Your task to perform on an android device: change notifications settings Image 0: 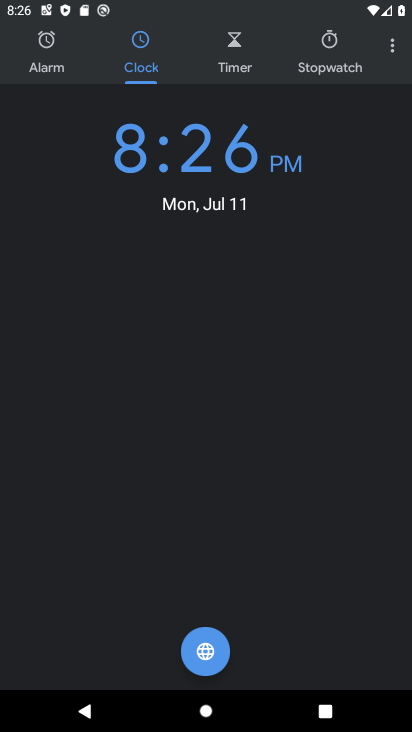
Step 0: press home button
Your task to perform on an android device: change notifications settings Image 1: 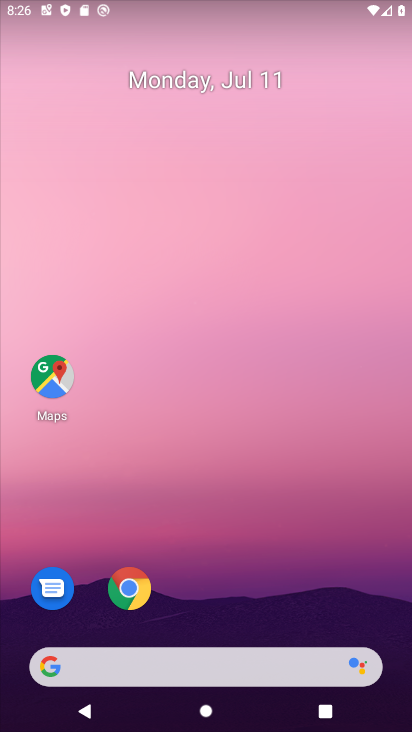
Step 1: drag from (318, 596) to (358, 83)
Your task to perform on an android device: change notifications settings Image 2: 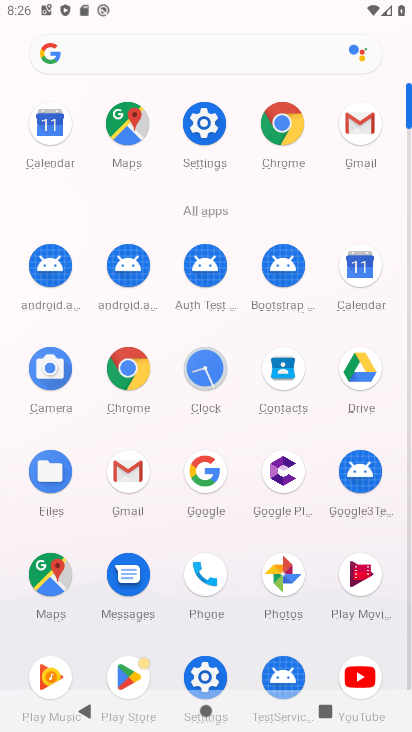
Step 2: click (210, 662)
Your task to perform on an android device: change notifications settings Image 3: 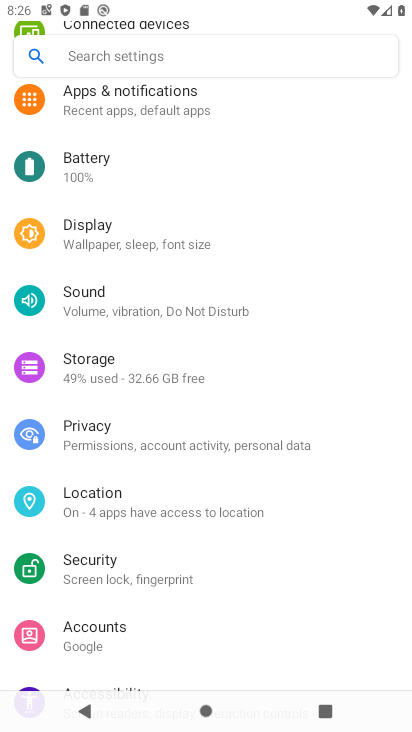
Step 3: click (116, 98)
Your task to perform on an android device: change notifications settings Image 4: 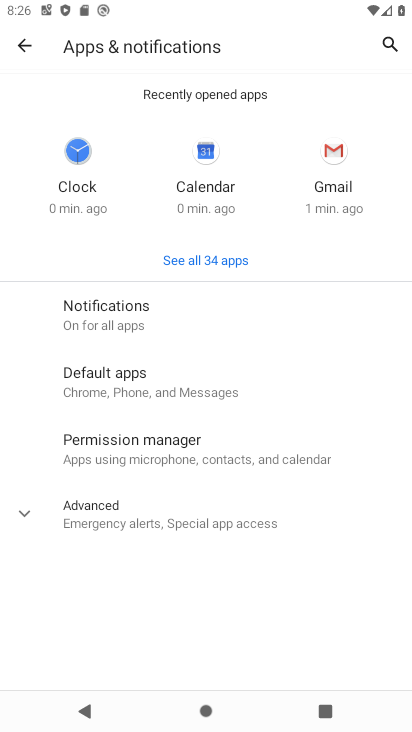
Step 4: click (154, 321)
Your task to perform on an android device: change notifications settings Image 5: 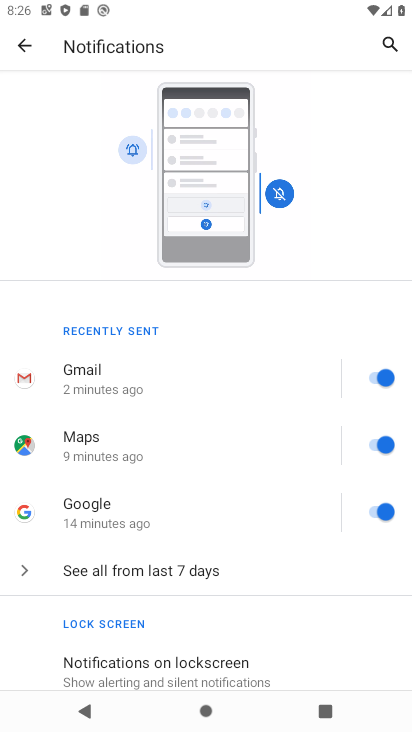
Step 5: click (213, 581)
Your task to perform on an android device: change notifications settings Image 6: 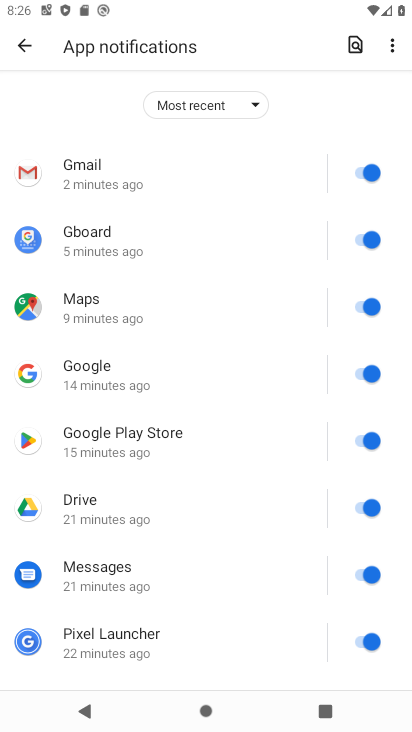
Step 6: click (362, 162)
Your task to perform on an android device: change notifications settings Image 7: 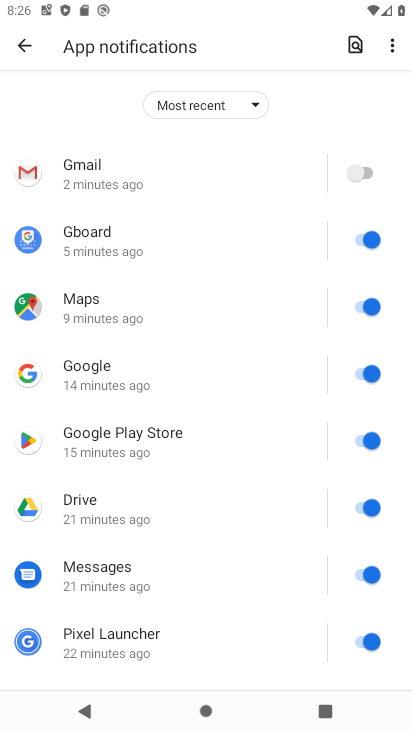
Step 7: click (367, 238)
Your task to perform on an android device: change notifications settings Image 8: 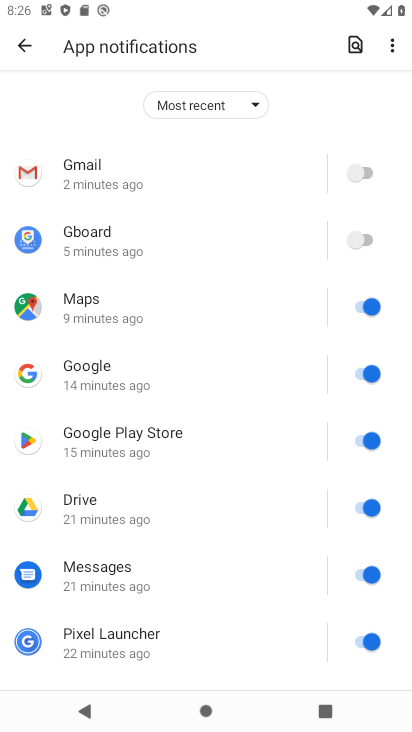
Step 8: click (367, 305)
Your task to perform on an android device: change notifications settings Image 9: 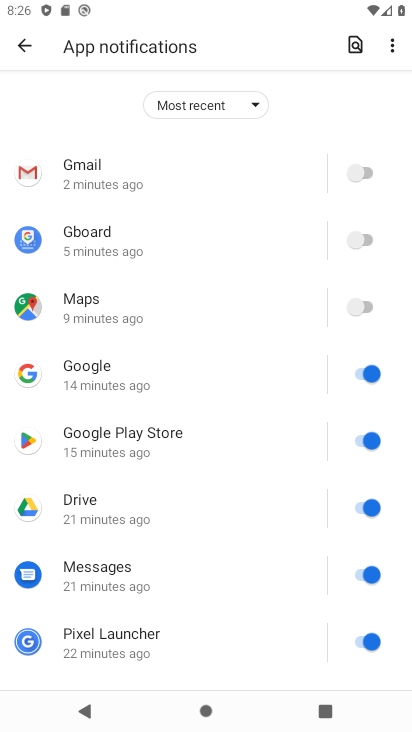
Step 9: click (369, 376)
Your task to perform on an android device: change notifications settings Image 10: 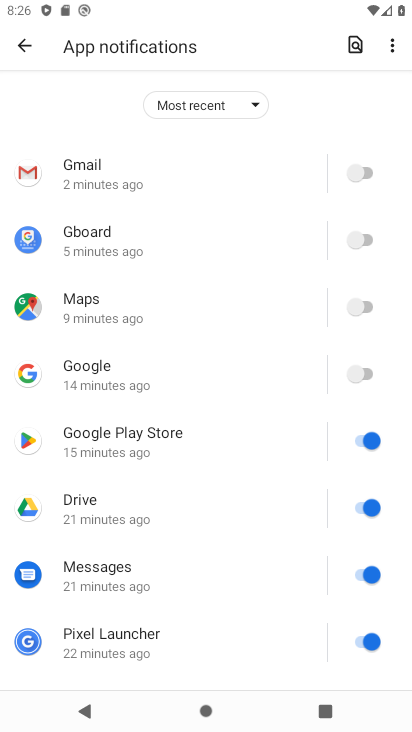
Step 10: click (363, 444)
Your task to perform on an android device: change notifications settings Image 11: 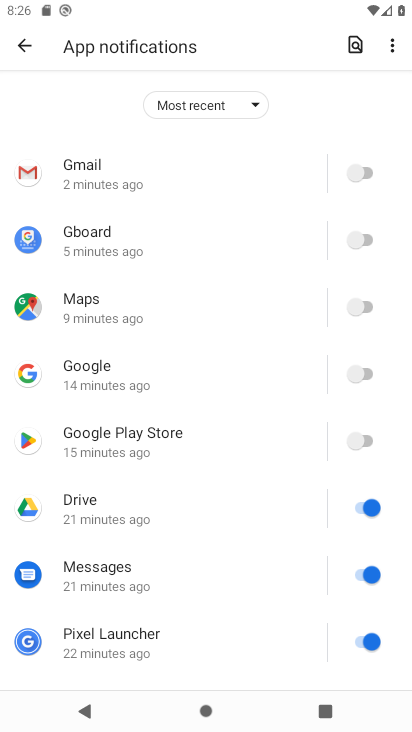
Step 11: click (369, 507)
Your task to perform on an android device: change notifications settings Image 12: 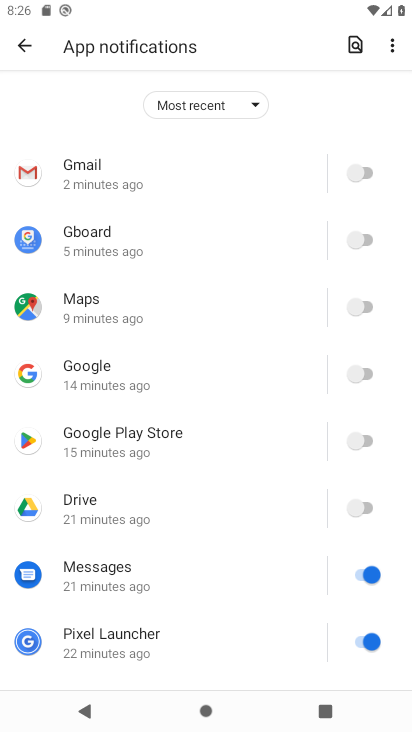
Step 12: click (369, 572)
Your task to perform on an android device: change notifications settings Image 13: 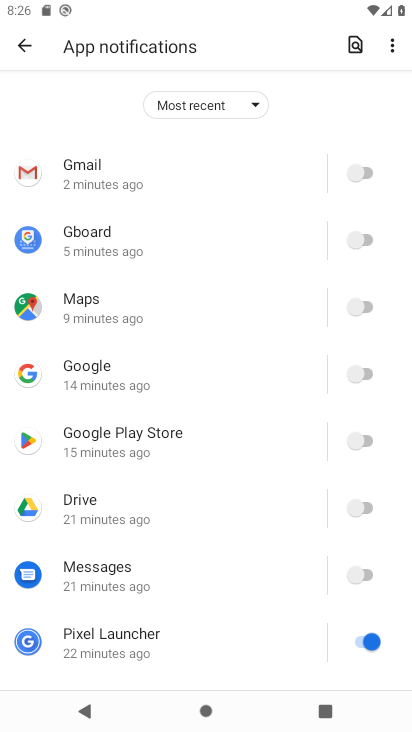
Step 13: click (373, 651)
Your task to perform on an android device: change notifications settings Image 14: 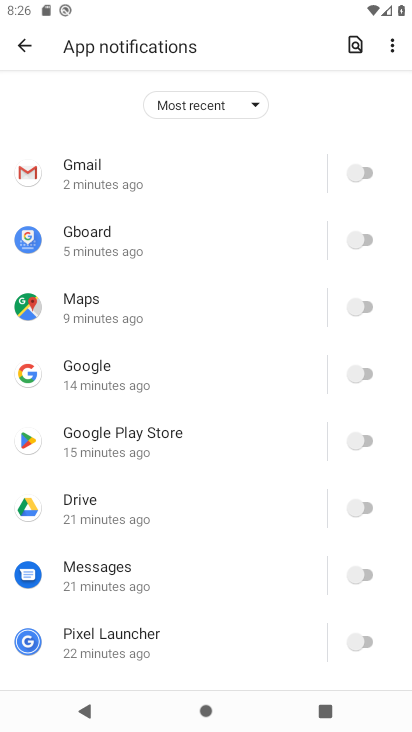
Step 14: drag from (263, 593) to (261, 150)
Your task to perform on an android device: change notifications settings Image 15: 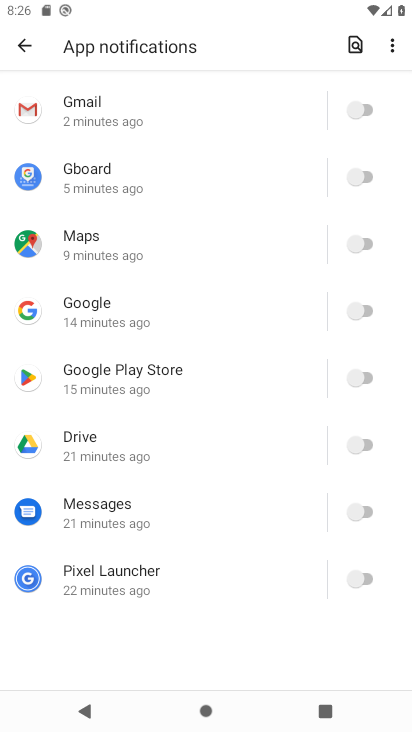
Step 15: click (19, 59)
Your task to perform on an android device: change notifications settings Image 16: 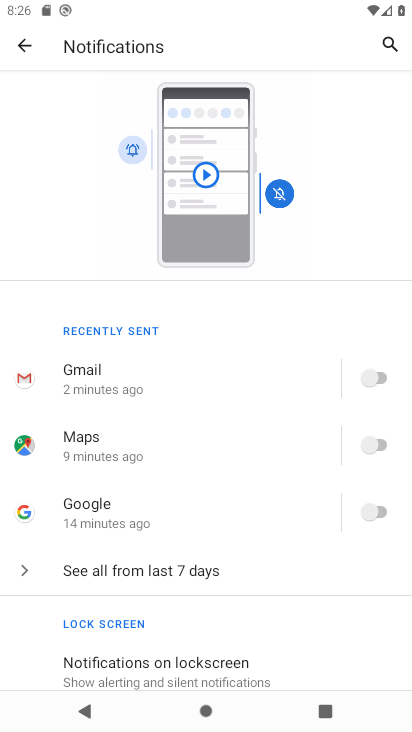
Step 16: click (152, 665)
Your task to perform on an android device: change notifications settings Image 17: 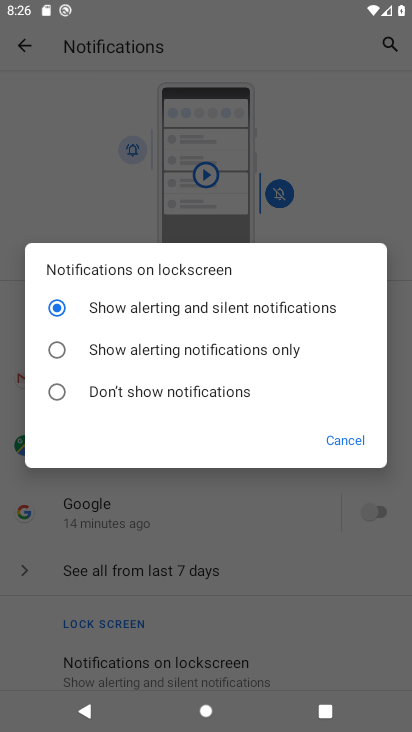
Step 17: click (161, 351)
Your task to perform on an android device: change notifications settings Image 18: 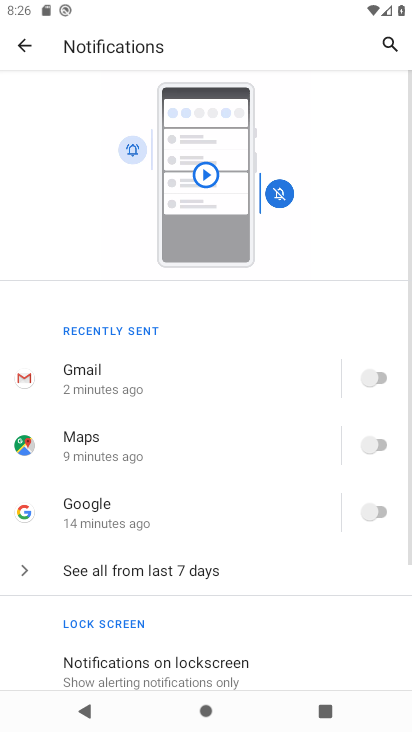
Step 18: drag from (223, 627) to (316, 50)
Your task to perform on an android device: change notifications settings Image 19: 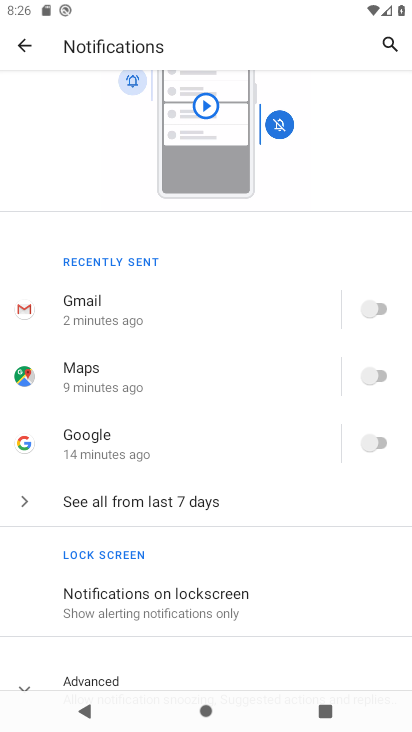
Step 19: click (230, 682)
Your task to perform on an android device: change notifications settings Image 20: 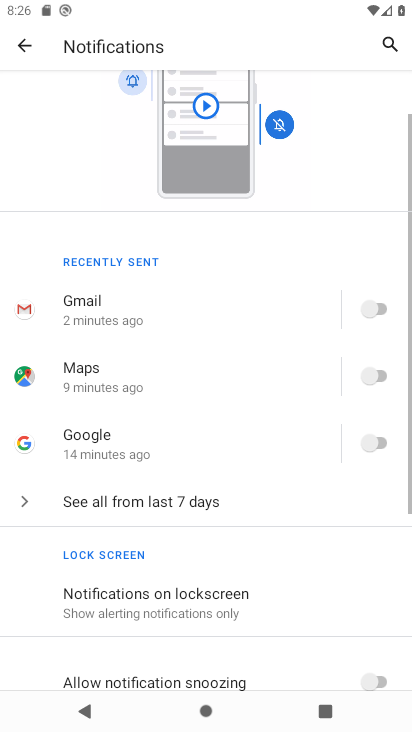
Step 20: drag from (230, 682) to (277, 153)
Your task to perform on an android device: change notifications settings Image 21: 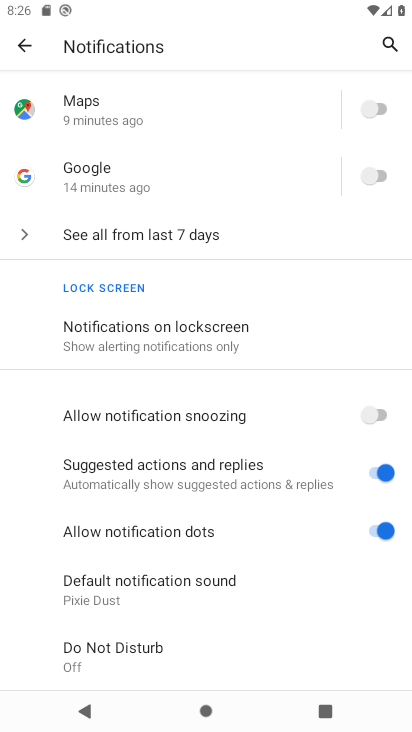
Step 21: click (378, 433)
Your task to perform on an android device: change notifications settings Image 22: 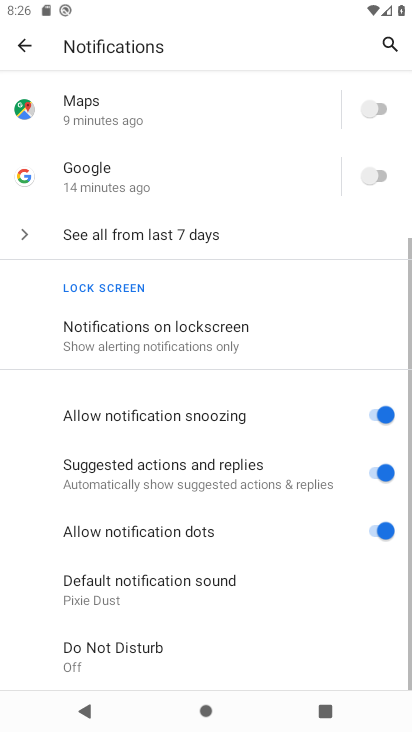
Step 22: click (378, 461)
Your task to perform on an android device: change notifications settings Image 23: 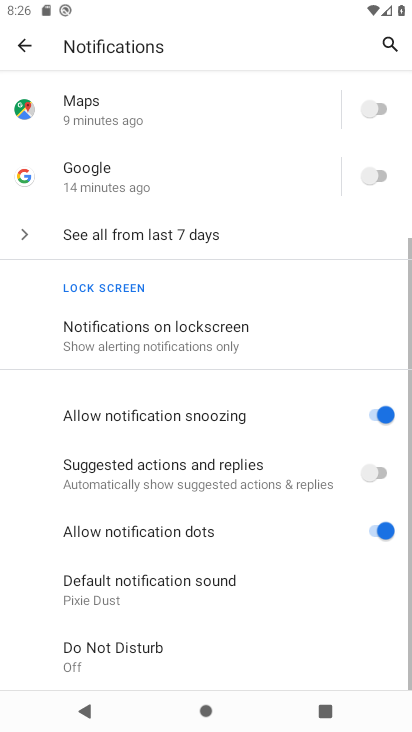
Step 23: click (371, 536)
Your task to perform on an android device: change notifications settings Image 24: 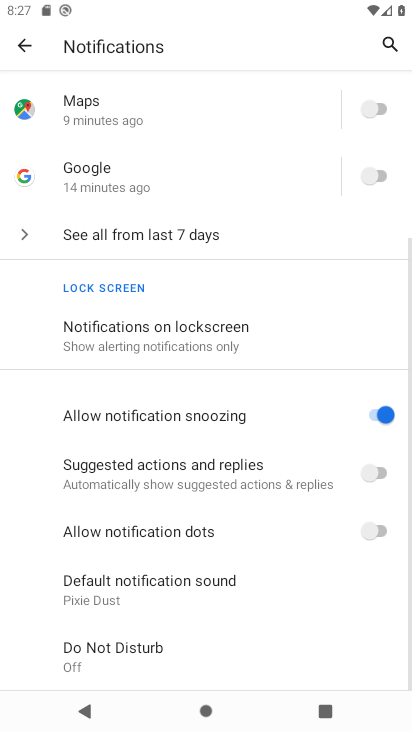
Step 24: task complete